Your task to perform on an android device: turn off translation in the chrome app Image 0: 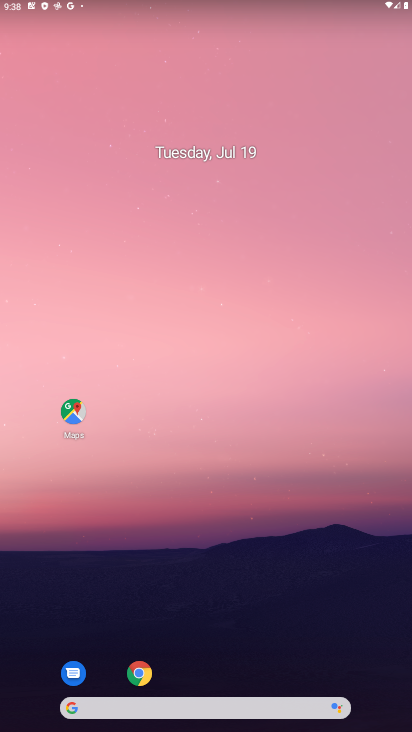
Step 0: click (138, 677)
Your task to perform on an android device: turn off translation in the chrome app Image 1: 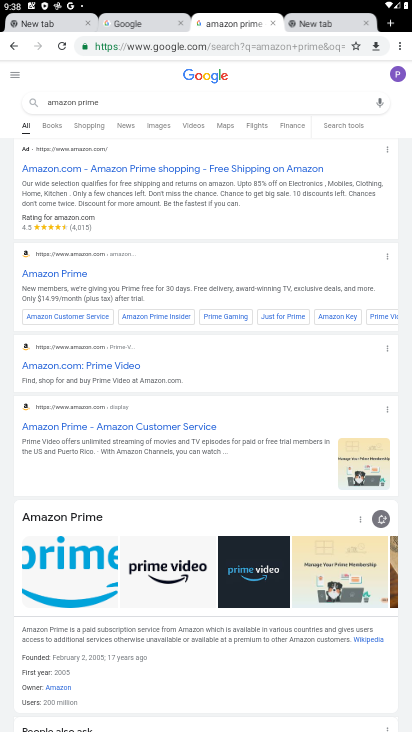
Step 1: click (402, 50)
Your task to perform on an android device: turn off translation in the chrome app Image 2: 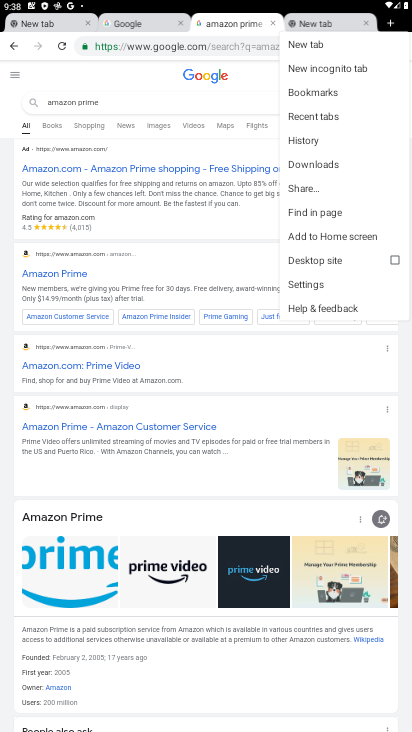
Step 2: click (312, 280)
Your task to perform on an android device: turn off translation in the chrome app Image 3: 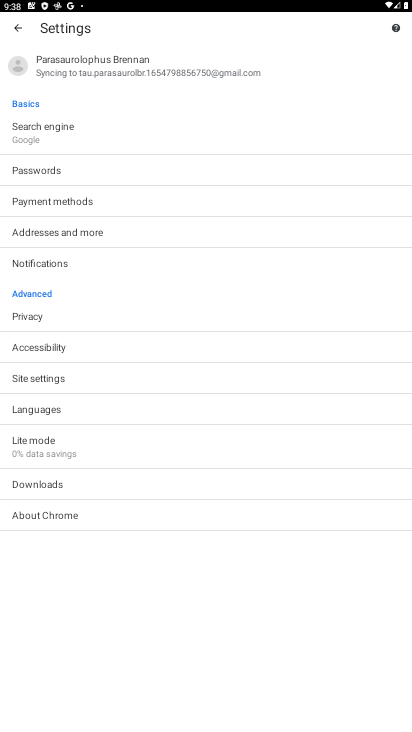
Step 3: click (93, 405)
Your task to perform on an android device: turn off translation in the chrome app Image 4: 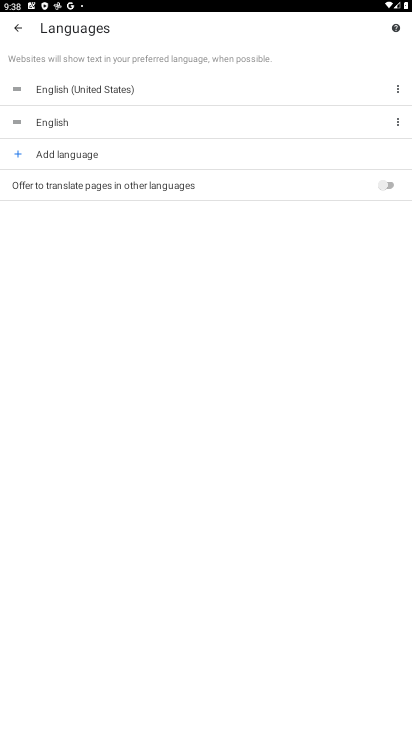
Step 4: task complete